Your task to perform on an android device: Open Reddit.com Image 0: 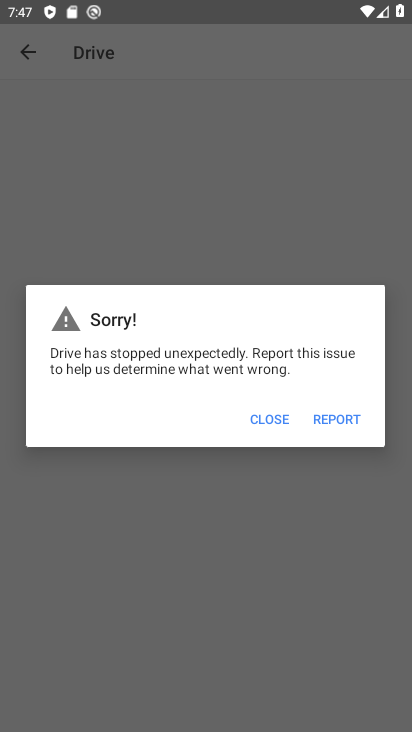
Step 0: press home button
Your task to perform on an android device: Open Reddit.com Image 1: 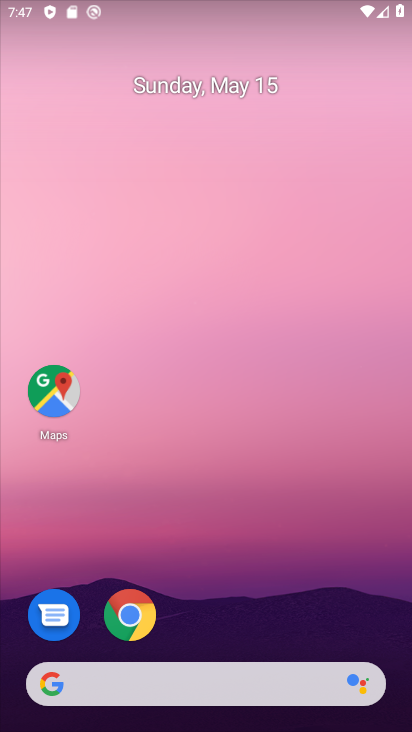
Step 1: drag from (243, 698) to (214, 325)
Your task to perform on an android device: Open Reddit.com Image 2: 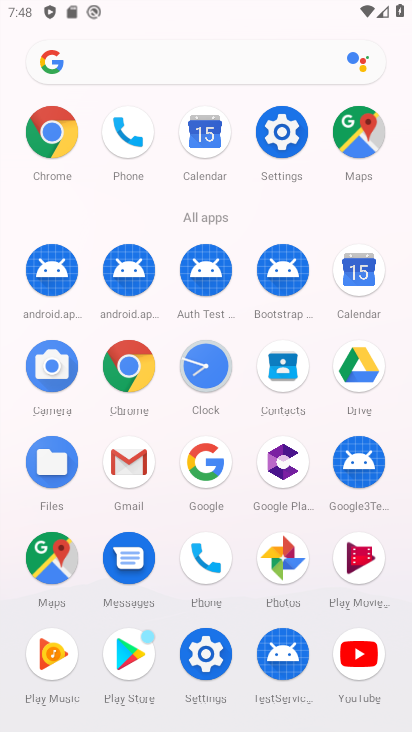
Step 2: click (44, 143)
Your task to perform on an android device: Open Reddit.com Image 3: 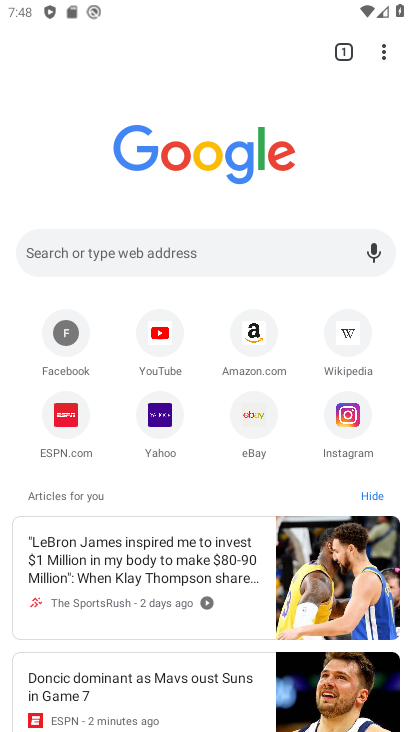
Step 3: click (167, 247)
Your task to perform on an android device: Open Reddit.com Image 4: 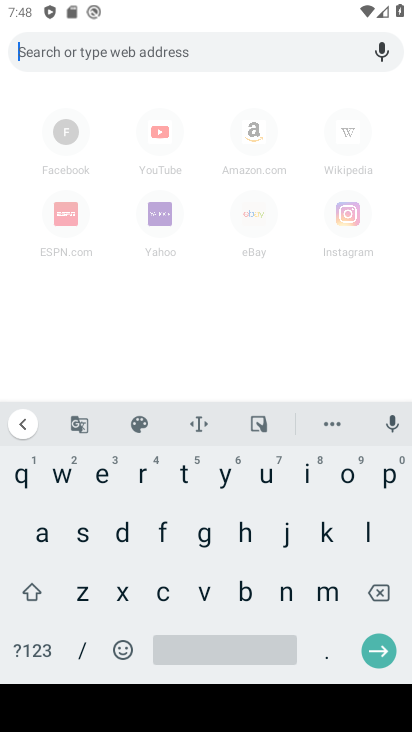
Step 4: click (139, 475)
Your task to perform on an android device: Open Reddit.com Image 5: 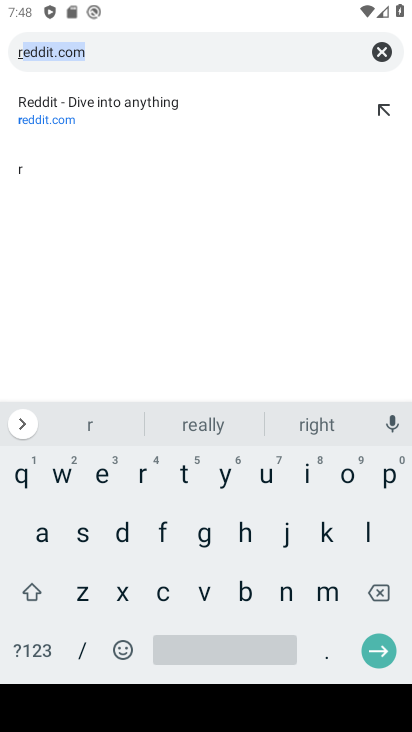
Step 5: click (95, 478)
Your task to perform on an android device: Open Reddit.com Image 6: 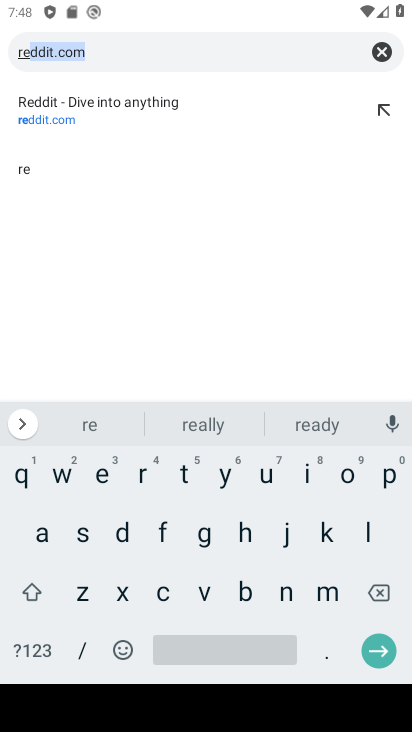
Step 6: click (123, 54)
Your task to perform on an android device: Open Reddit.com Image 7: 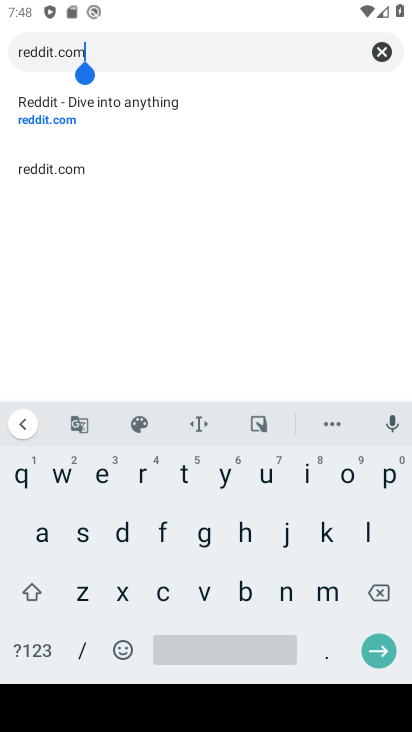
Step 7: click (383, 650)
Your task to perform on an android device: Open Reddit.com Image 8: 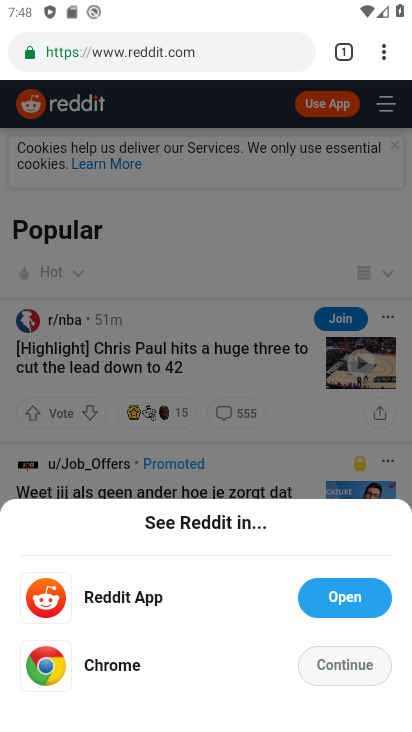
Step 8: click (156, 654)
Your task to perform on an android device: Open Reddit.com Image 9: 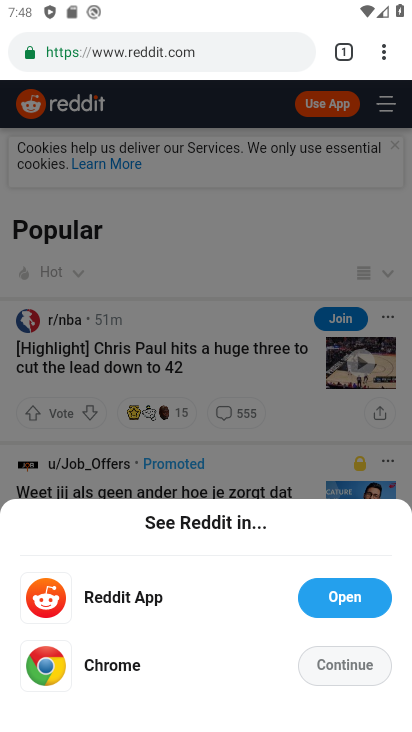
Step 9: click (347, 666)
Your task to perform on an android device: Open Reddit.com Image 10: 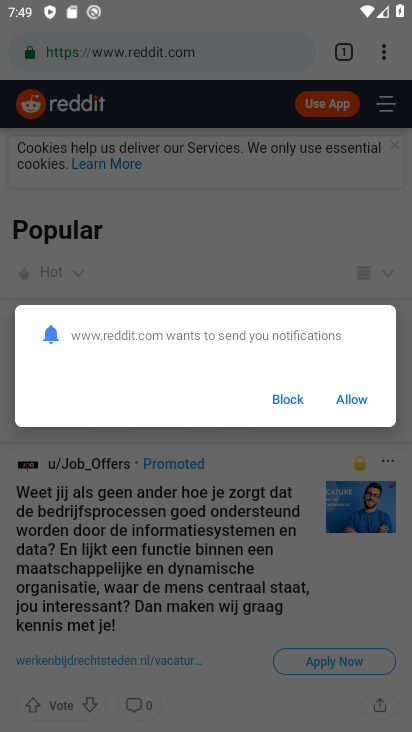
Step 10: task complete